Your task to perform on an android device: toggle notifications settings in the gmail app Image 0: 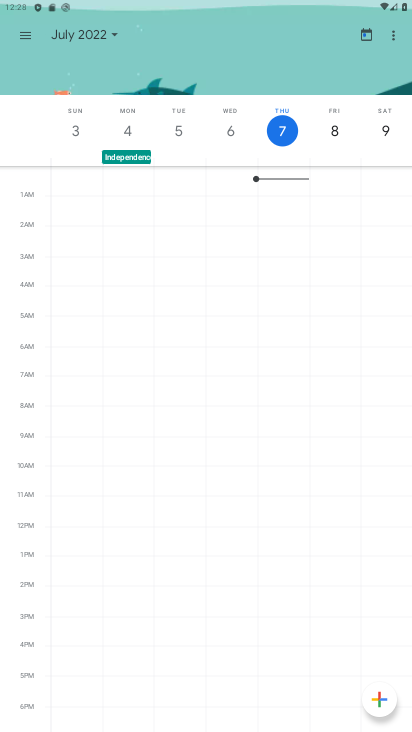
Step 0: press home button
Your task to perform on an android device: toggle notifications settings in the gmail app Image 1: 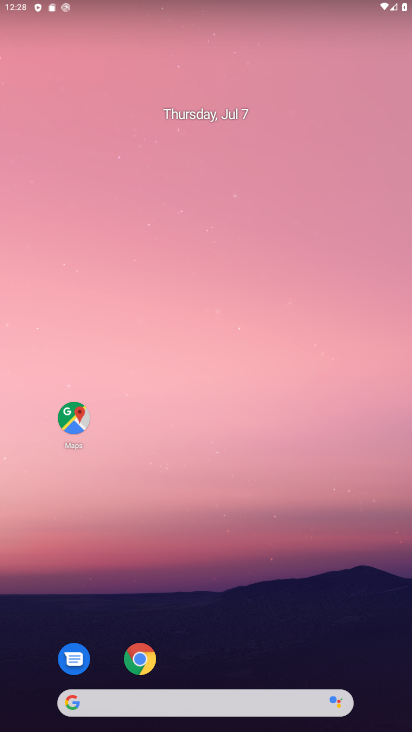
Step 1: drag from (261, 586) to (268, 185)
Your task to perform on an android device: toggle notifications settings in the gmail app Image 2: 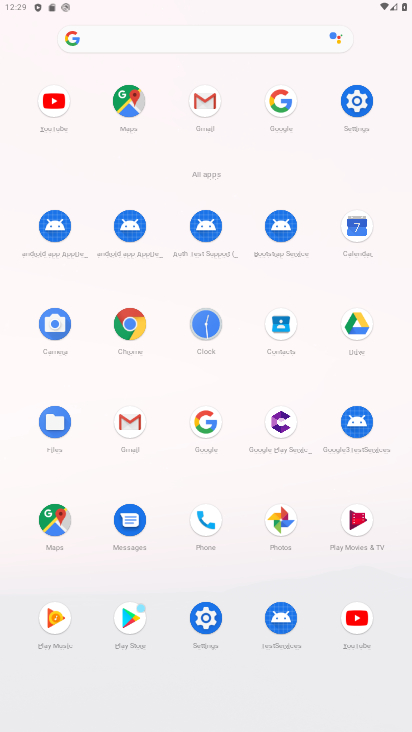
Step 2: click (204, 98)
Your task to perform on an android device: toggle notifications settings in the gmail app Image 3: 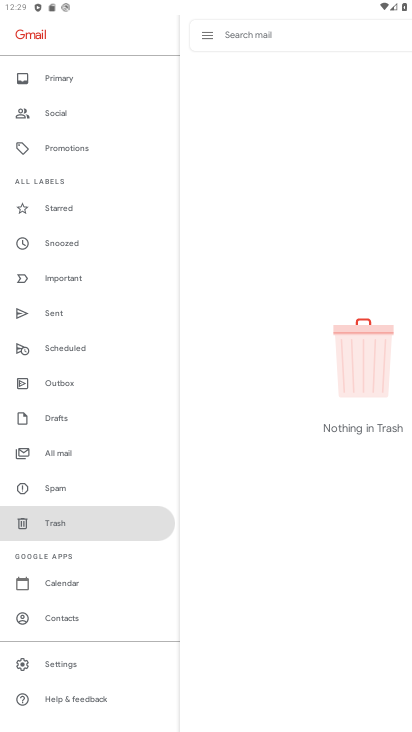
Step 3: click (60, 669)
Your task to perform on an android device: toggle notifications settings in the gmail app Image 4: 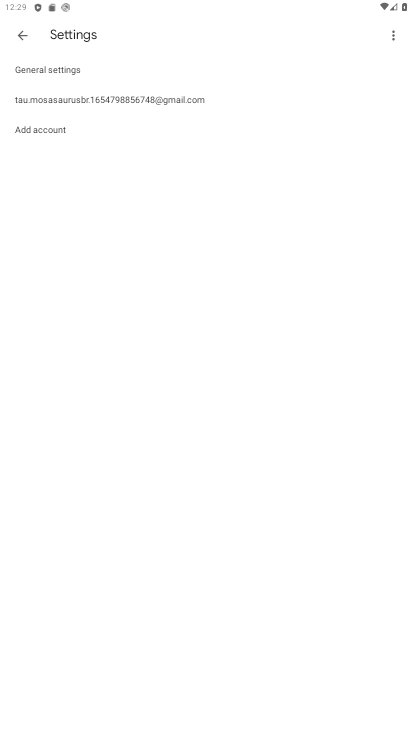
Step 4: click (59, 67)
Your task to perform on an android device: toggle notifications settings in the gmail app Image 5: 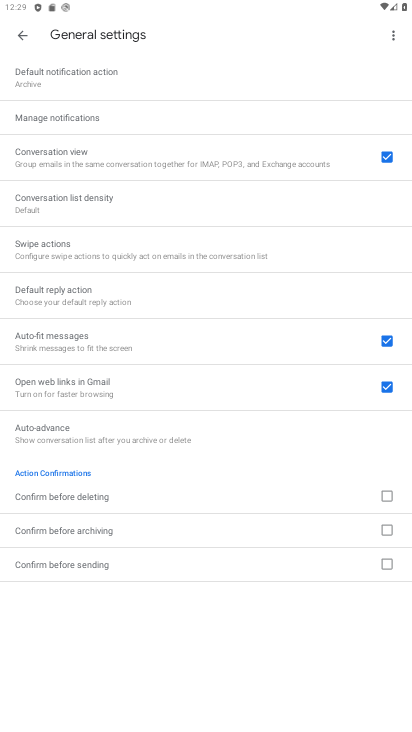
Step 5: click (60, 117)
Your task to perform on an android device: toggle notifications settings in the gmail app Image 6: 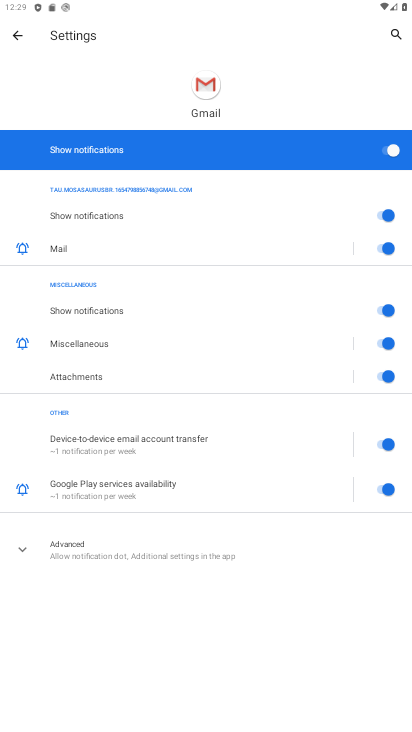
Step 6: click (387, 141)
Your task to perform on an android device: toggle notifications settings in the gmail app Image 7: 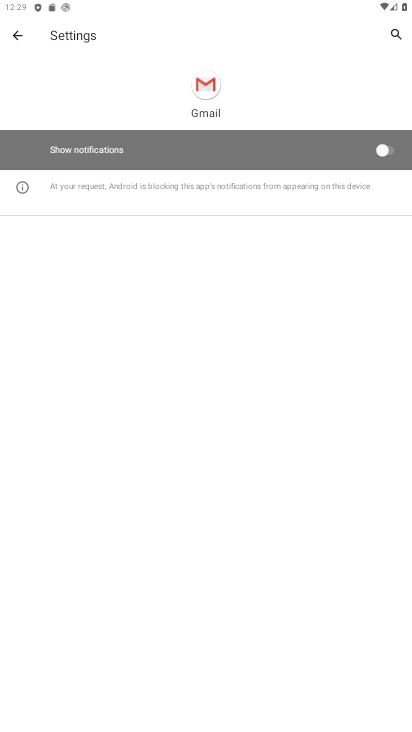
Step 7: task complete